Your task to perform on an android device: show emergency info Image 0: 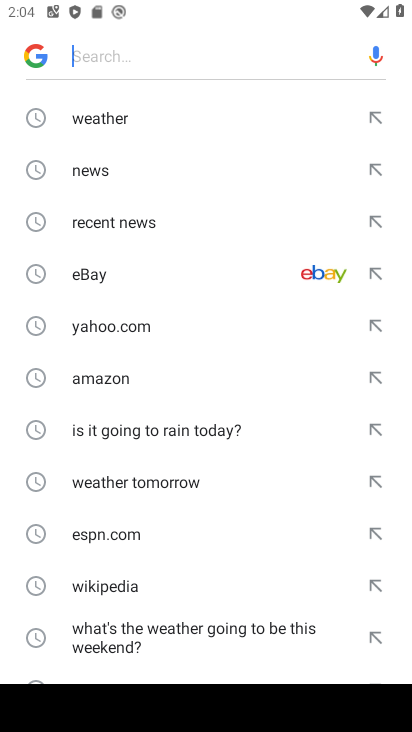
Step 0: press home button
Your task to perform on an android device: show emergency info Image 1: 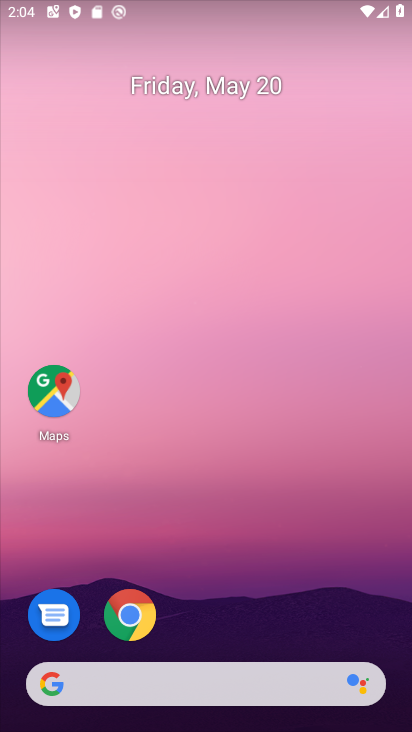
Step 1: drag from (256, 454) to (248, 247)
Your task to perform on an android device: show emergency info Image 2: 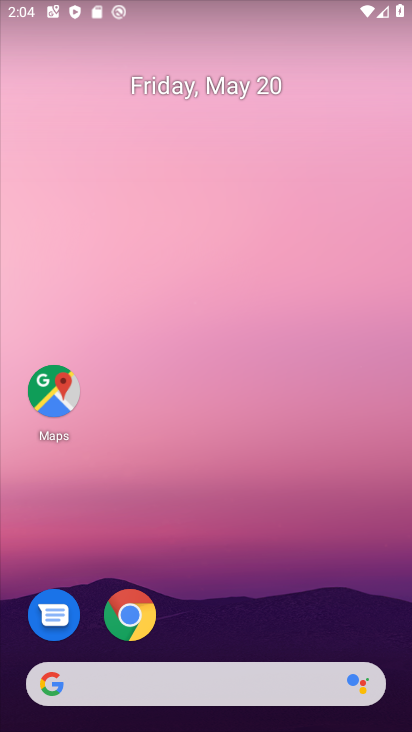
Step 2: drag from (275, 271) to (275, 224)
Your task to perform on an android device: show emergency info Image 3: 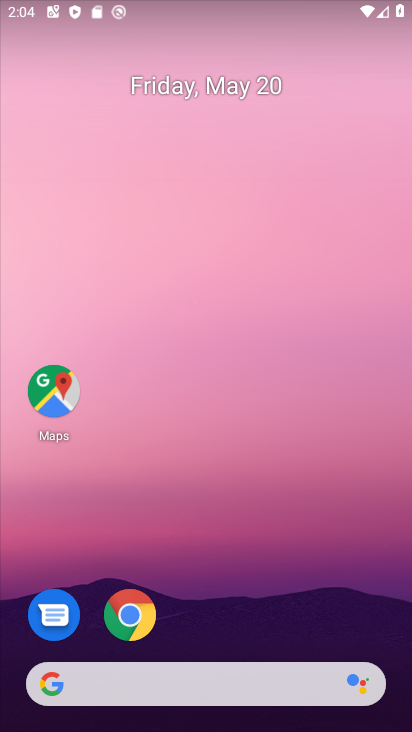
Step 3: drag from (269, 563) to (286, 263)
Your task to perform on an android device: show emergency info Image 4: 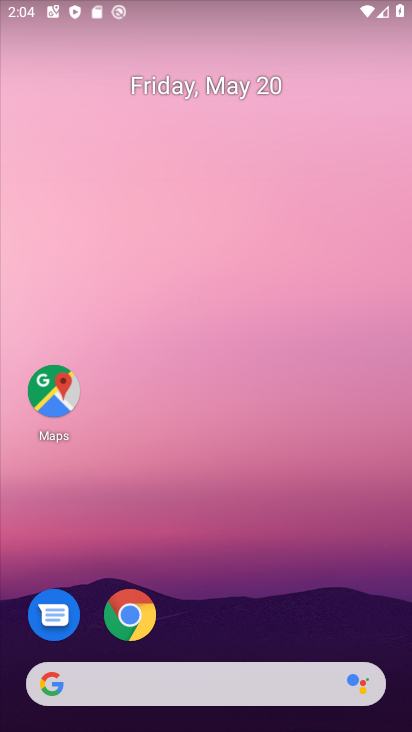
Step 4: drag from (243, 567) to (263, 266)
Your task to perform on an android device: show emergency info Image 5: 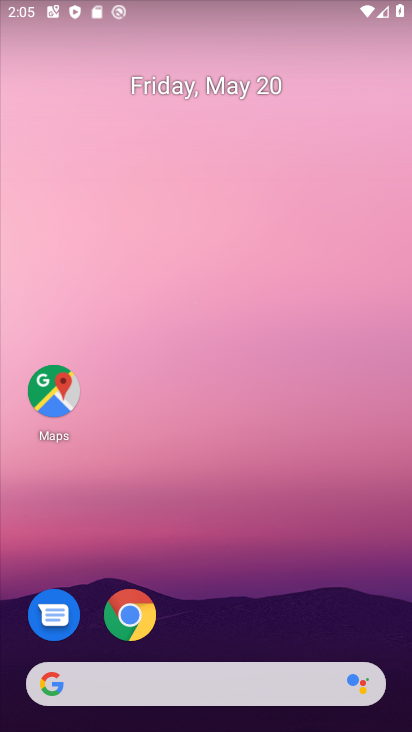
Step 5: drag from (268, 624) to (235, 74)
Your task to perform on an android device: show emergency info Image 6: 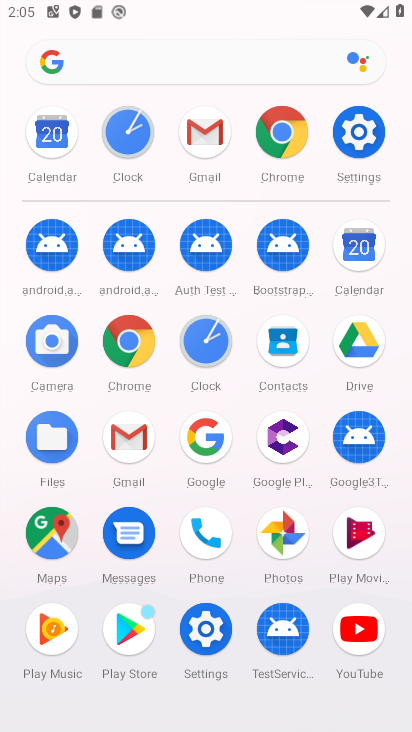
Step 6: click (350, 123)
Your task to perform on an android device: show emergency info Image 7: 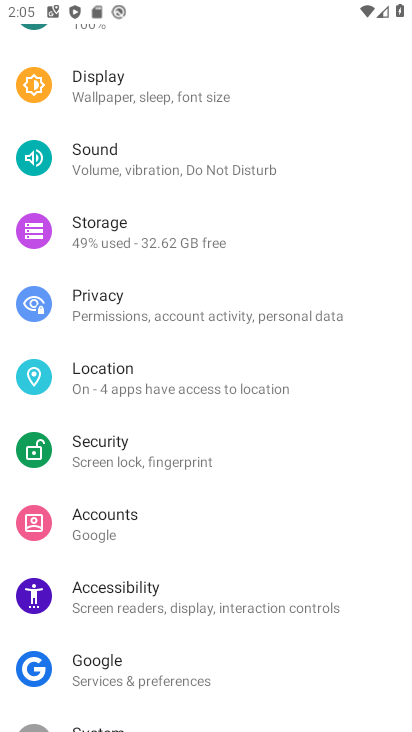
Step 7: drag from (202, 678) to (277, 172)
Your task to perform on an android device: show emergency info Image 8: 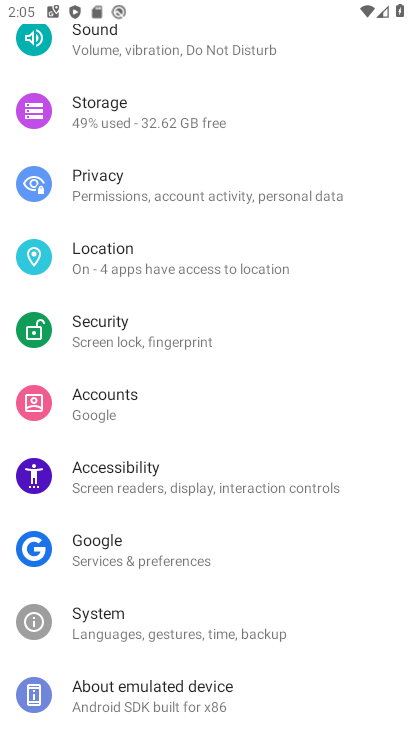
Step 8: click (155, 700)
Your task to perform on an android device: show emergency info Image 9: 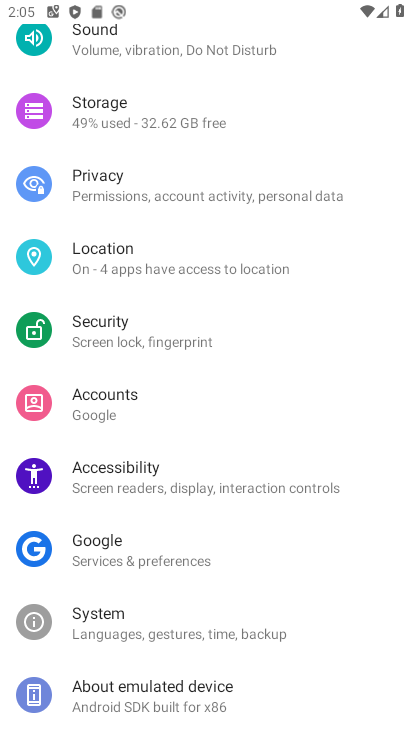
Step 9: click (161, 691)
Your task to perform on an android device: show emergency info Image 10: 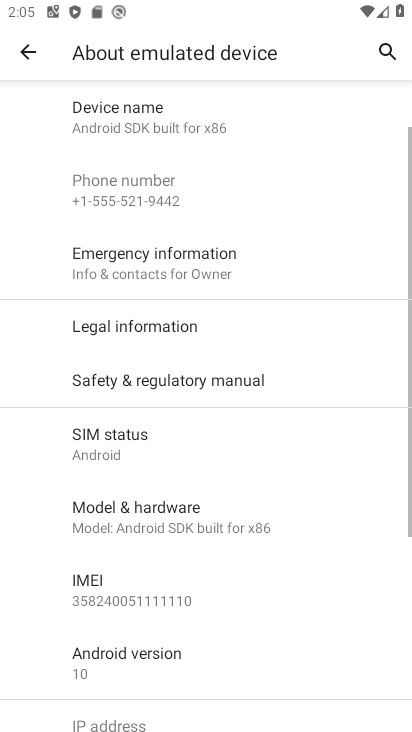
Step 10: click (178, 261)
Your task to perform on an android device: show emergency info Image 11: 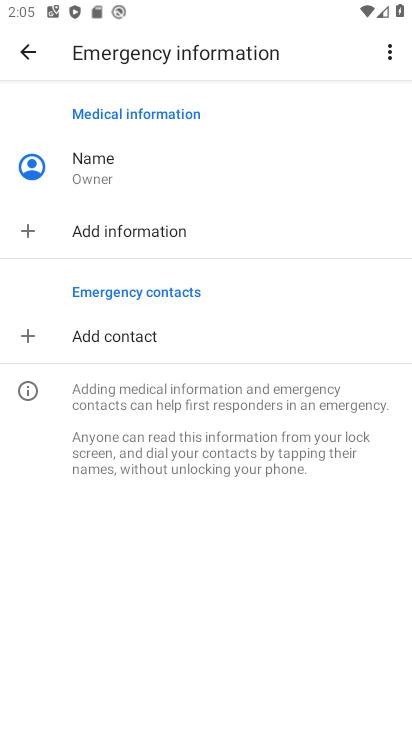
Step 11: task complete